Your task to perform on an android device: uninstall "YouTube Kids" Image 0: 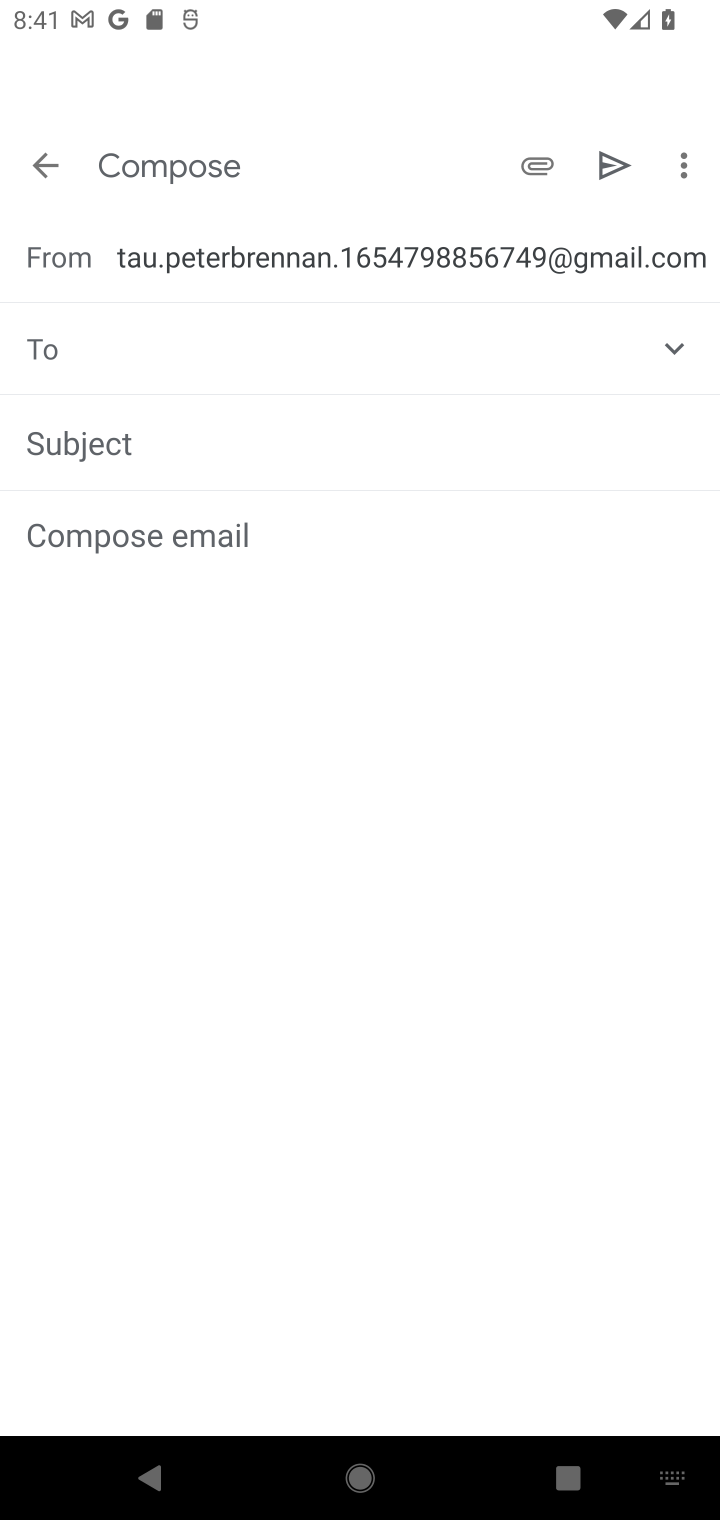
Step 0: press home button
Your task to perform on an android device: uninstall "YouTube Kids" Image 1: 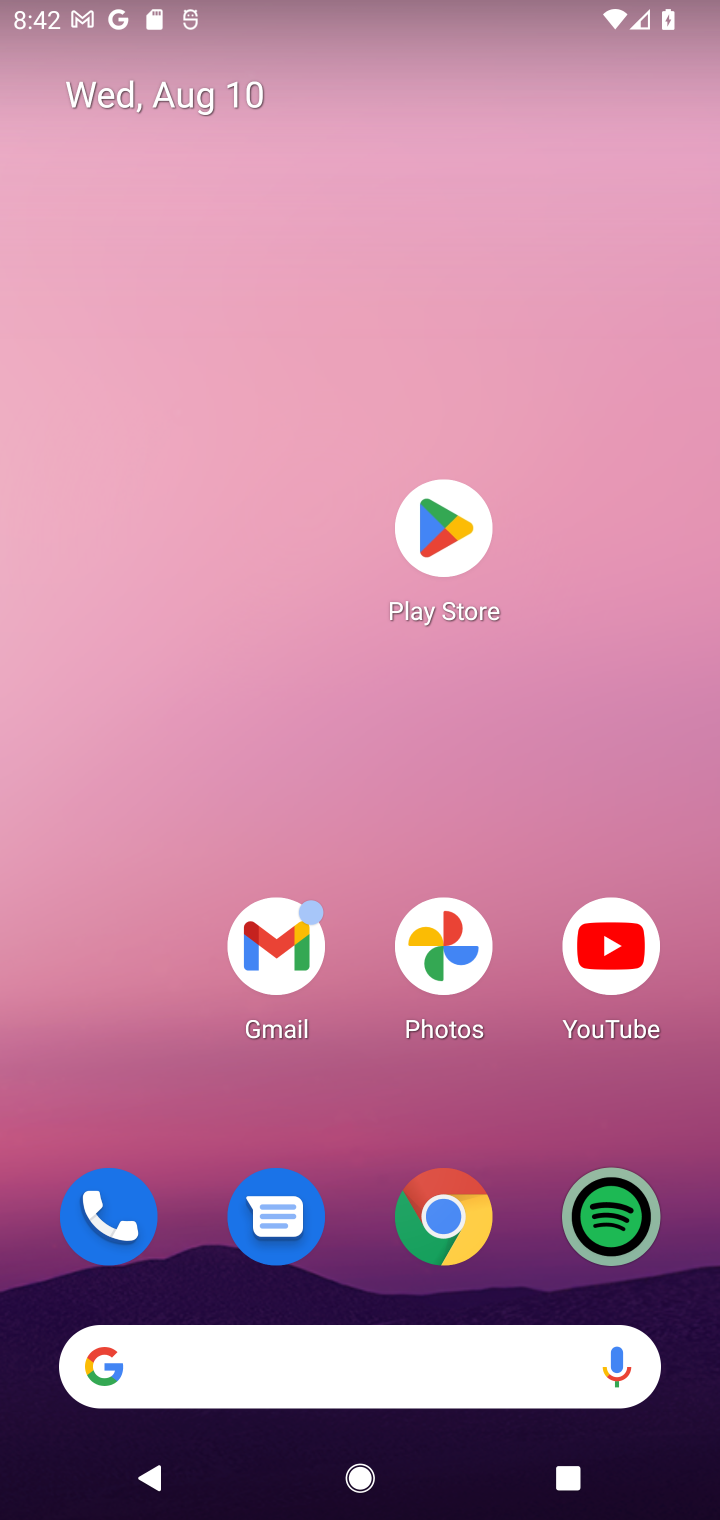
Step 1: click (438, 530)
Your task to perform on an android device: uninstall "YouTube Kids" Image 2: 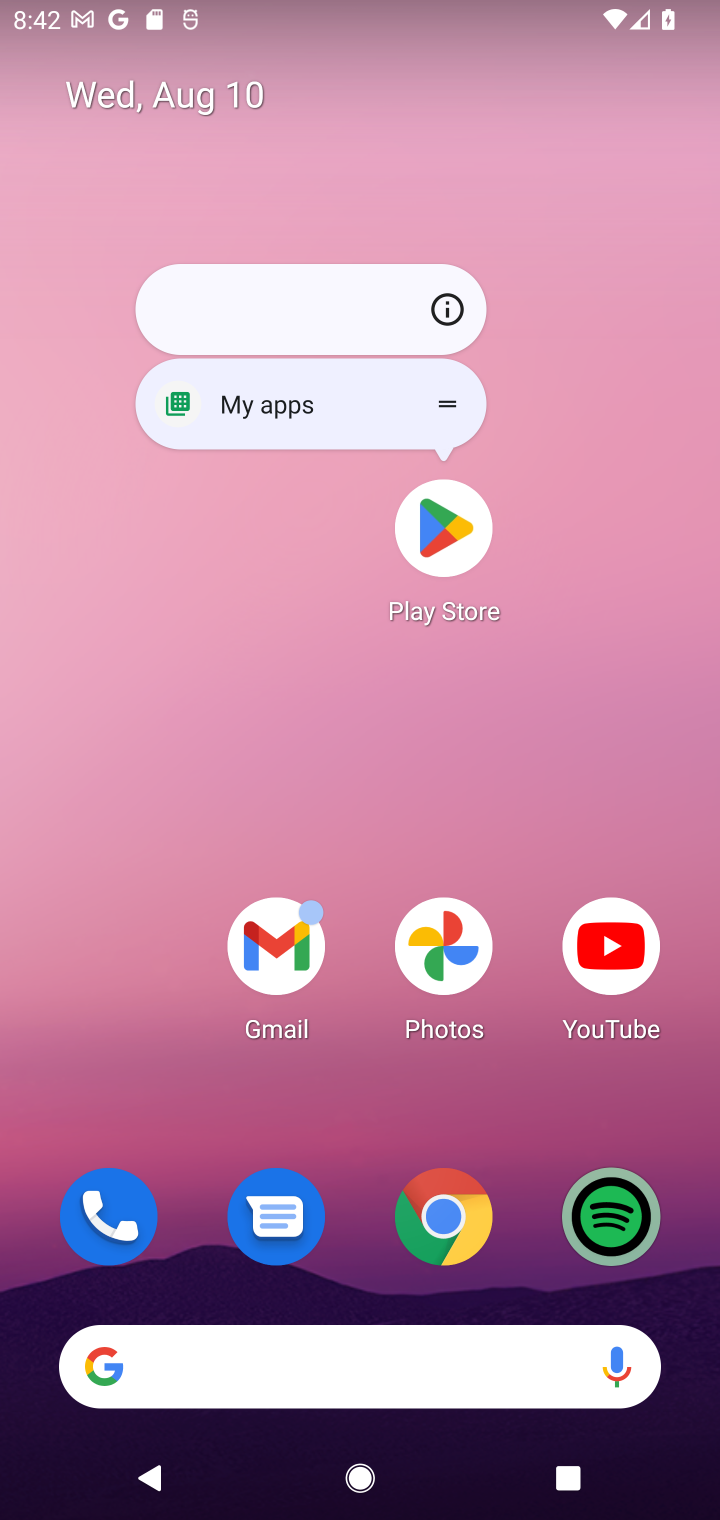
Step 2: click (438, 532)
Your task to perform on an android device: uninstall "YouTube Kids" Image 3: 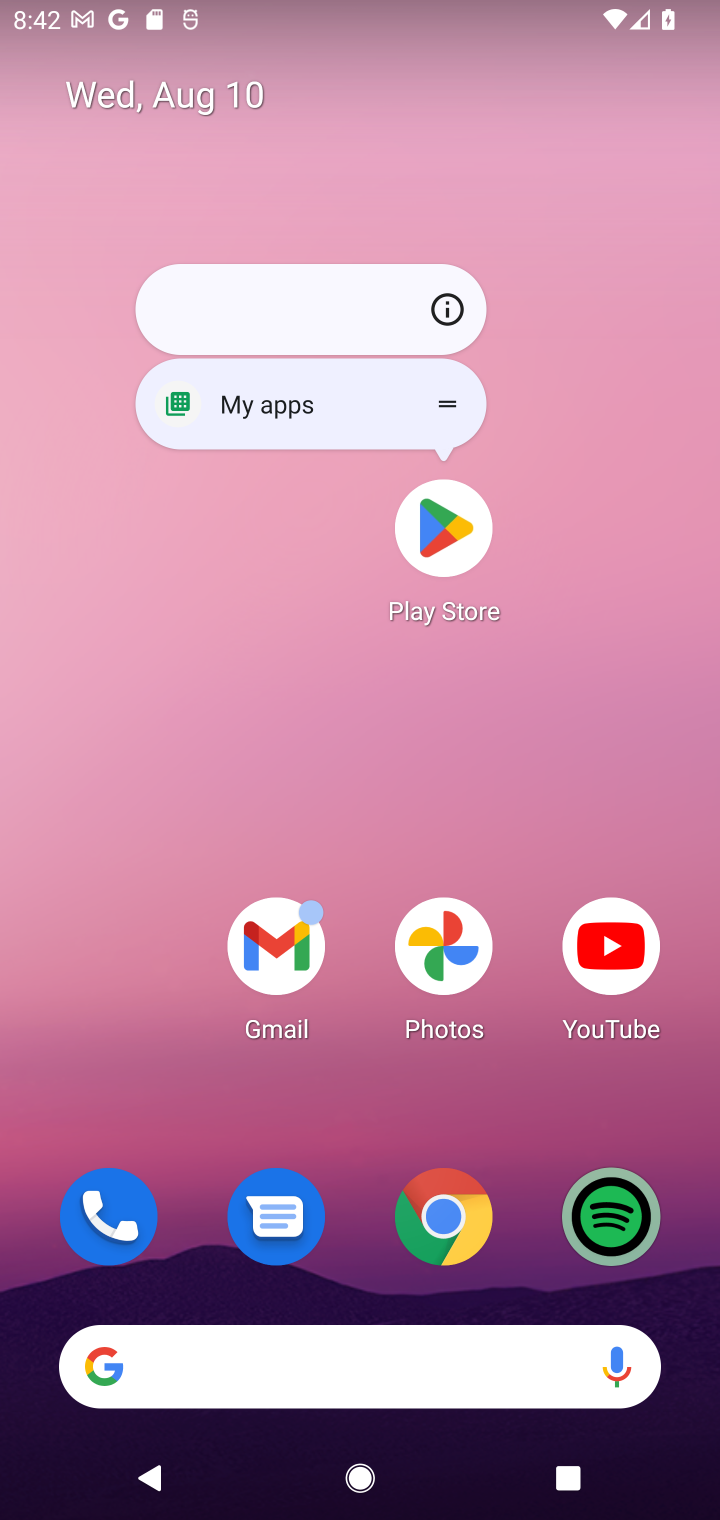
Step 3: click (438, 532)
Your task to perform on an android device: uninstall "YouTube Kids" Image 4: 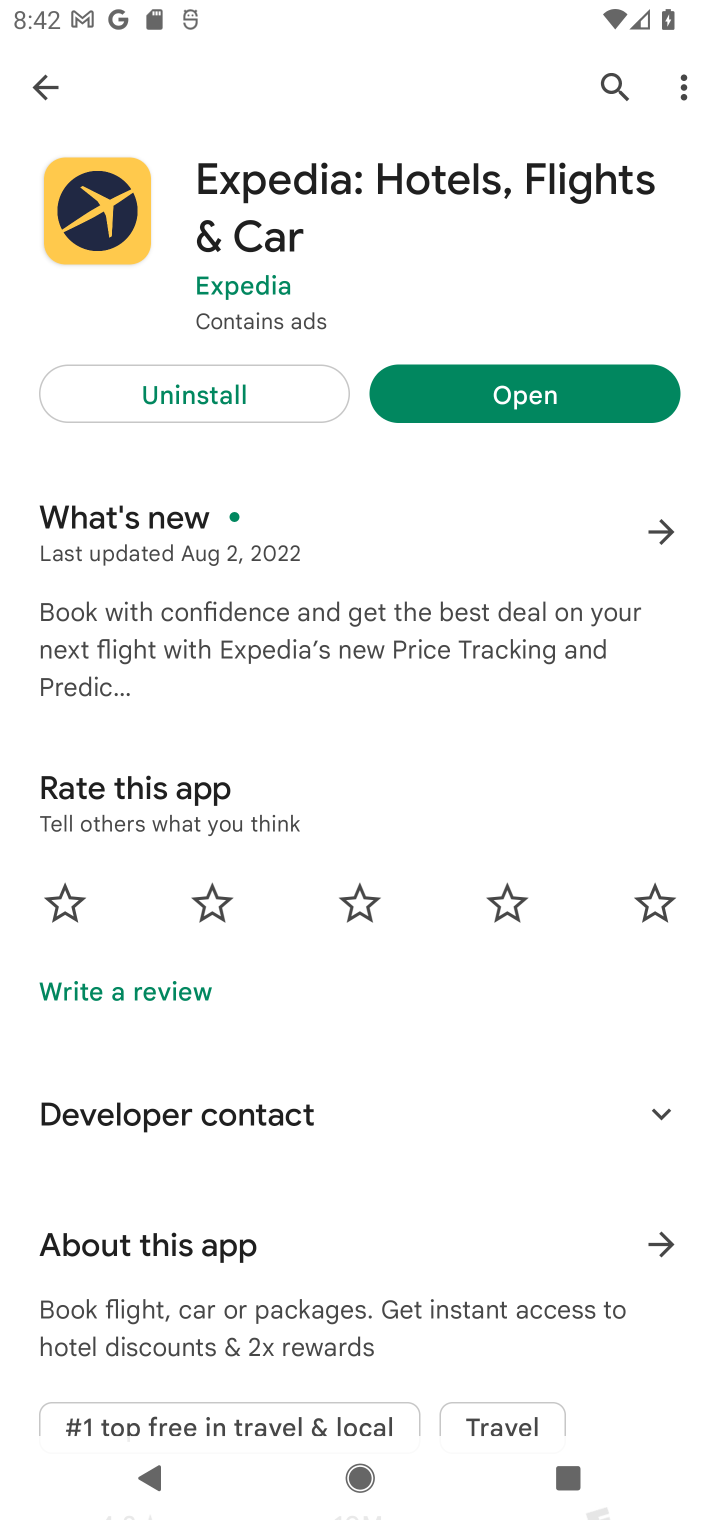
Step 4: click (601, 89)
Your task to perform on an android device: uninstall "YouTube Kids" Image 5: 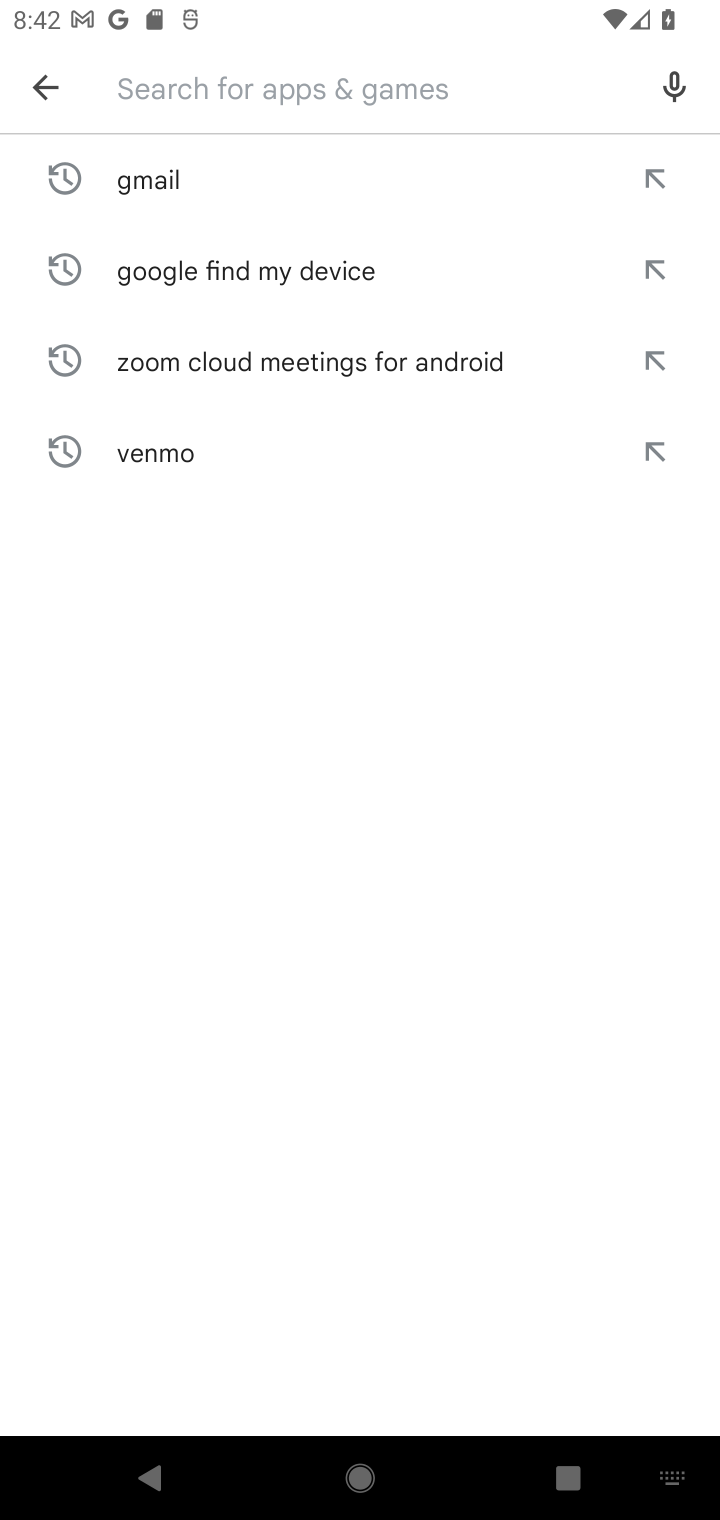
Step 5: type "YouTube Kids"
Your task to perform on an android device: uninstall "YouTube Kids" Image 6: 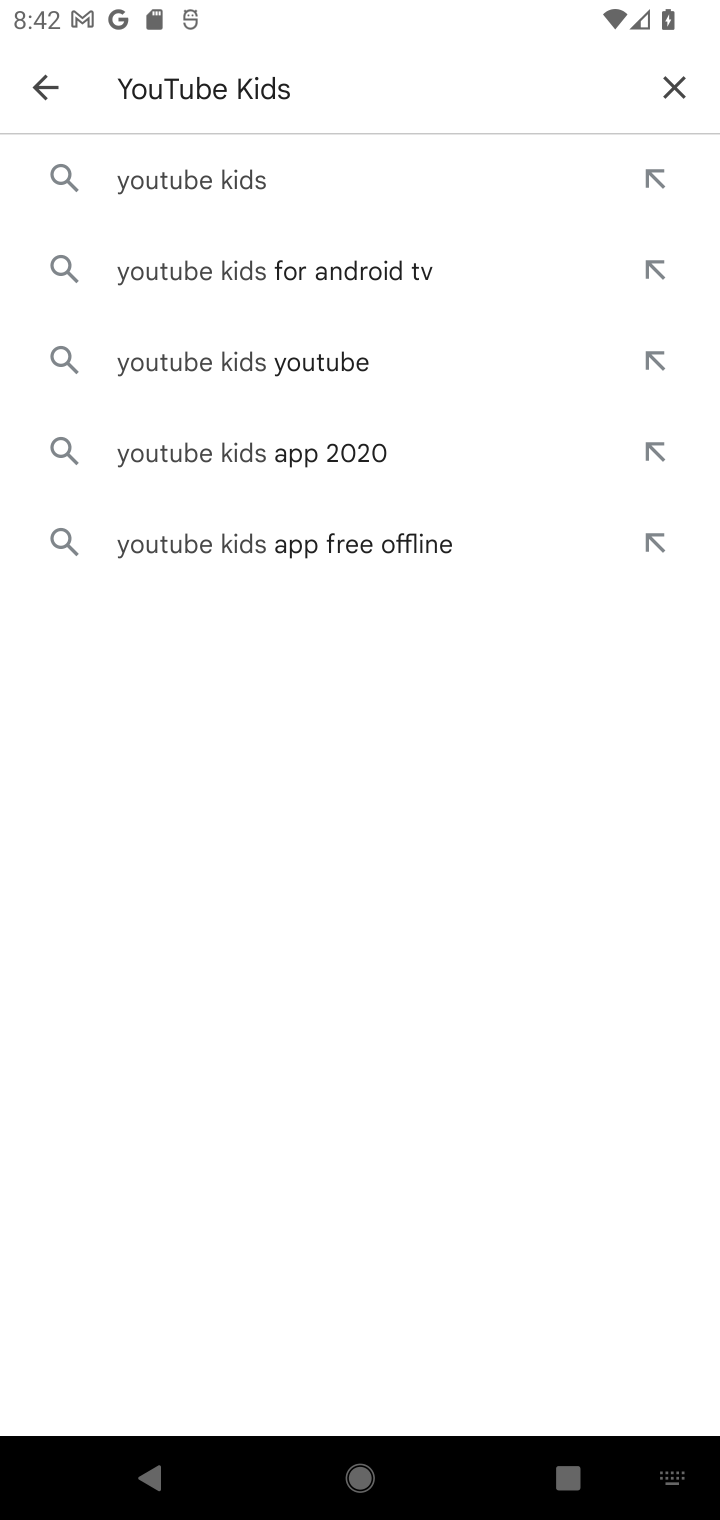
Step 6: click (145, 178)
Your task to perform on an android device: uninstall "YouTube Kids" Image 7: 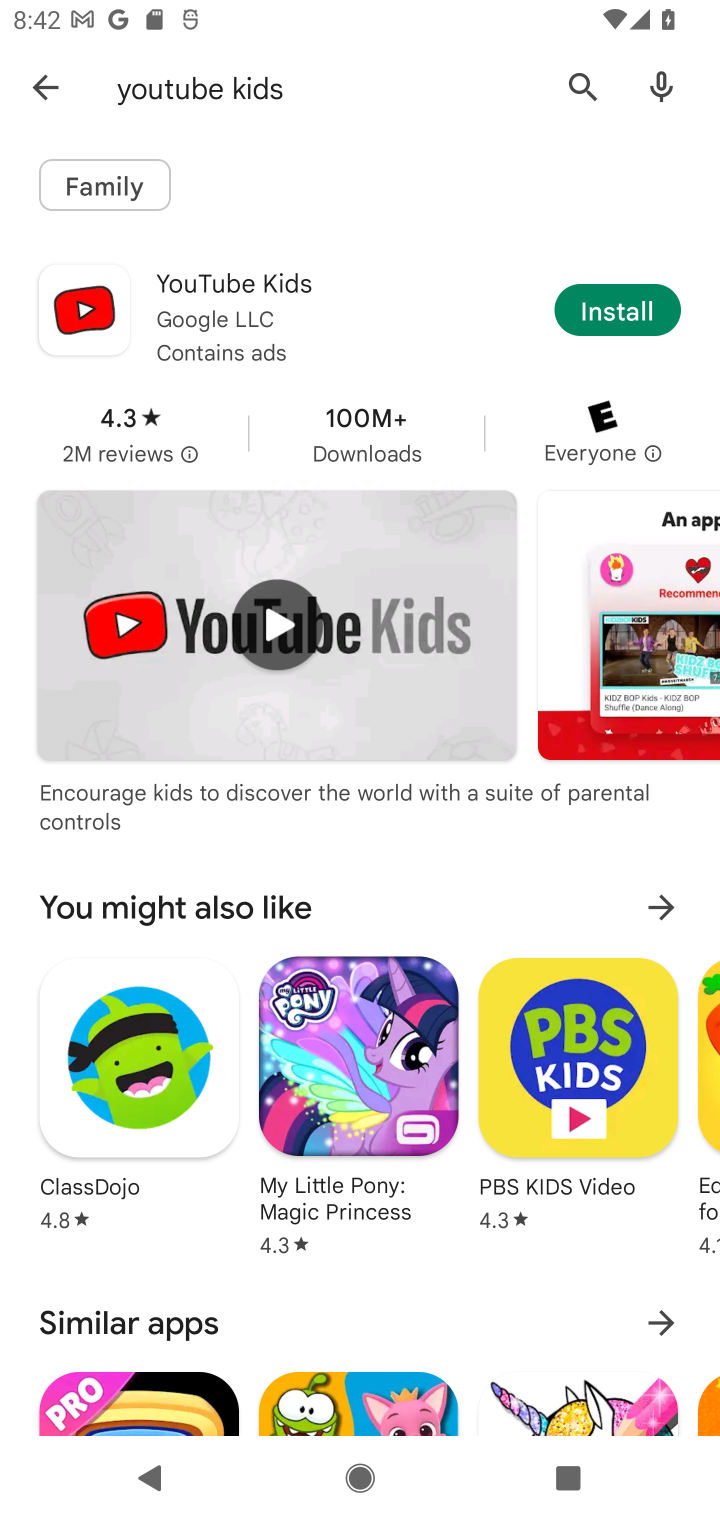
Step 7: task complete